Your task to perform on an android device: check android version Image 0: 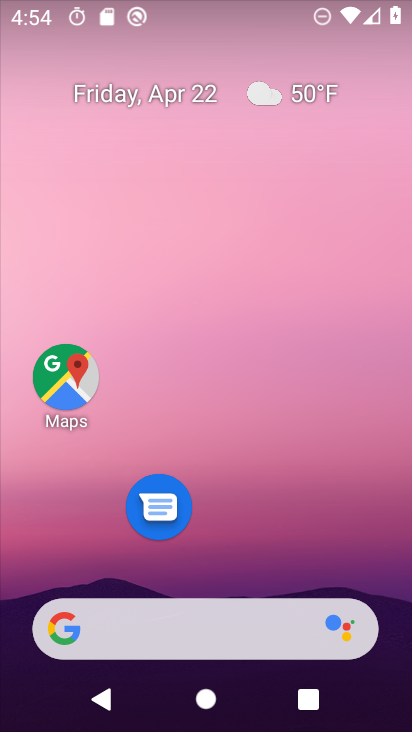
Step 0: drag from (251, 485) to (272, 108)
Your task to perform on an android device: check android version Image 1: 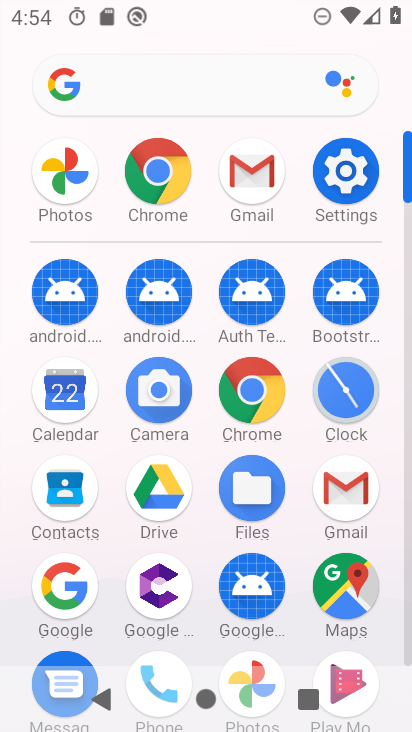
Step 1: click (350, 165)
Your task to perform on an android device: check android version Image 2: 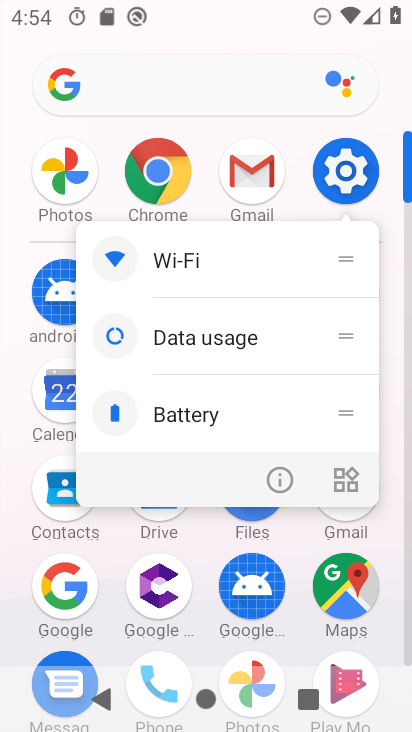
Step 2: click (350, 163)
Your task to perform on an android device: check android version Image 3: 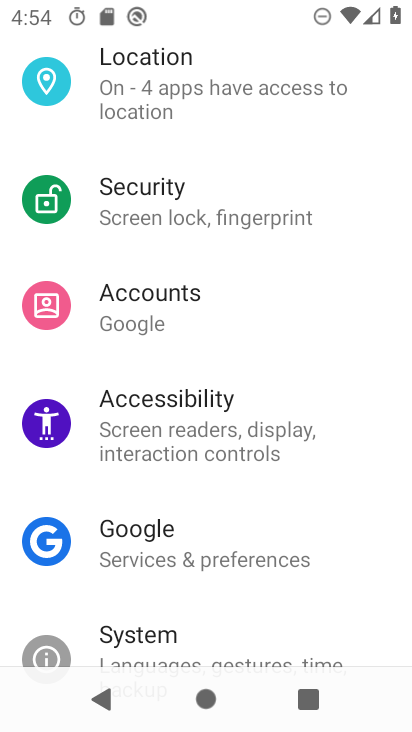
Step 3: drag from (183, 576) to (272, 47)
Your task to perform on an android device: check android version Image 4: 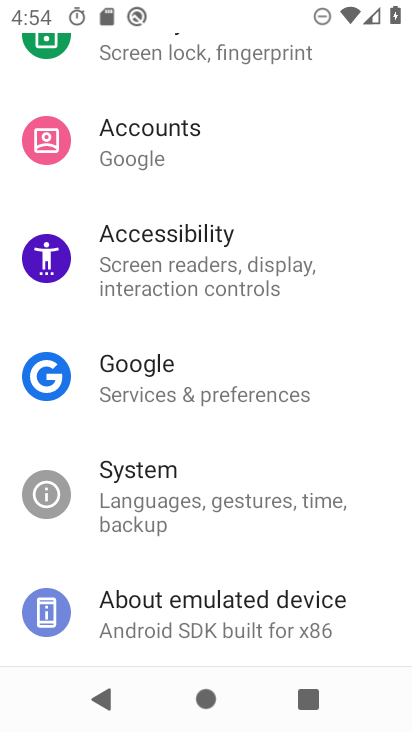
Step 4: click (198, 626)
Your task to perform on an android device: check android version Image 5: 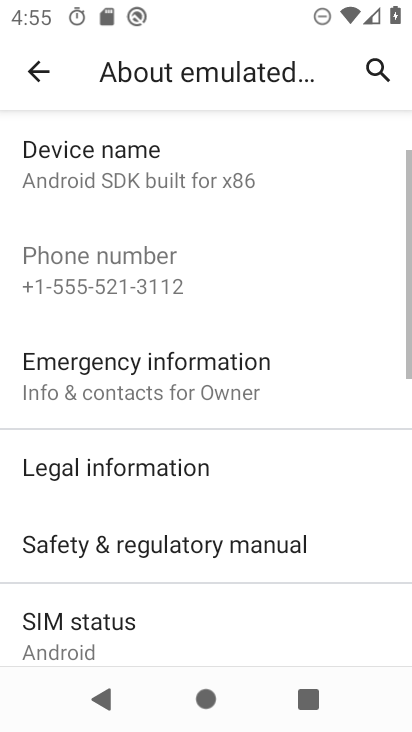
Step 5: drag from (145, 499) to (212, 47)
Your task to perform on an android device: check android version Image 6: 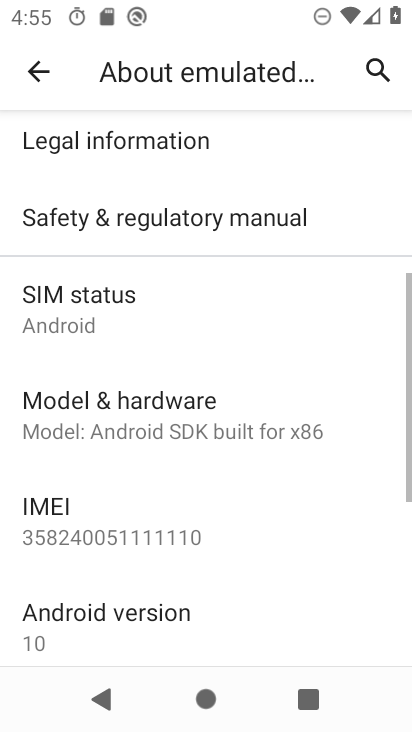
Step 6: click (115, 613)
Your task to perform on an android device: check android version Image 7: 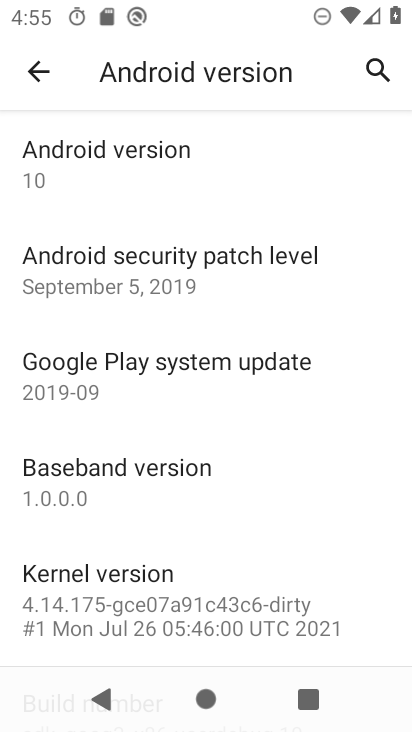
Step 7: click (204, 153)
Your task to perform on an android device: check android version Image 8: 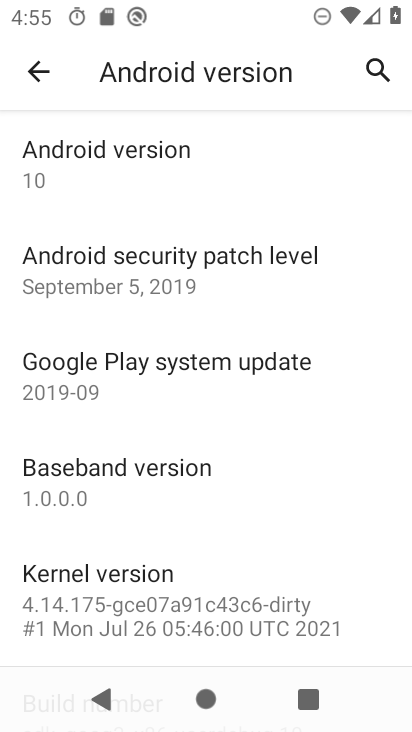
Step 8: task complete